Your task to perform on an android device: Open calendar and show me the second week of next month Image 0: 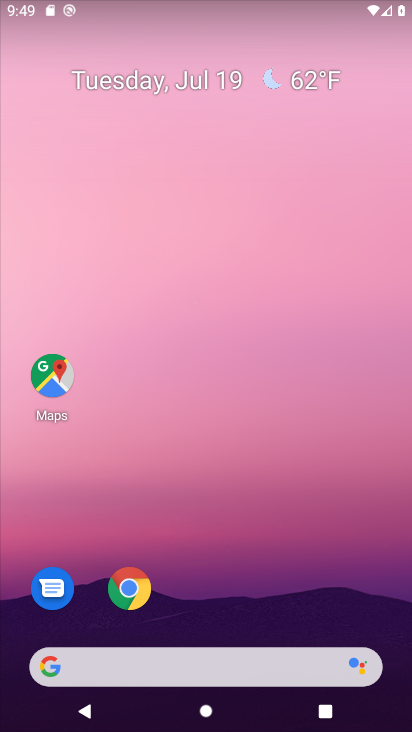
Step 0: drag from (180, 589) to (234, 116)
Your task to perform on an android device: Open calendar and show me the second week of next month Image 1: 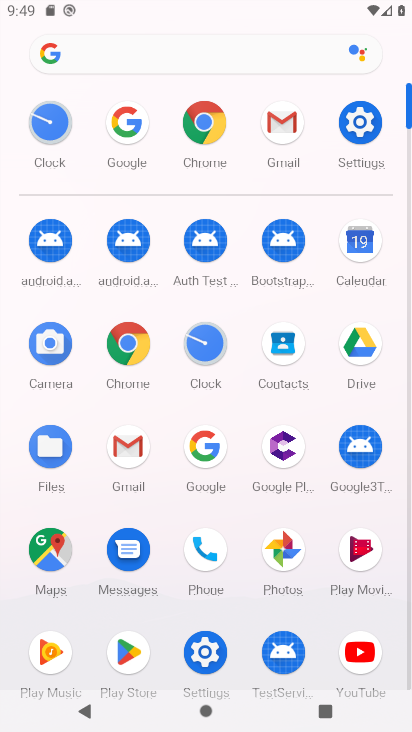
Step 1: click (361, 250)
Your task to perform on an android device: Open calendar and show me the second week of next month Image 2: 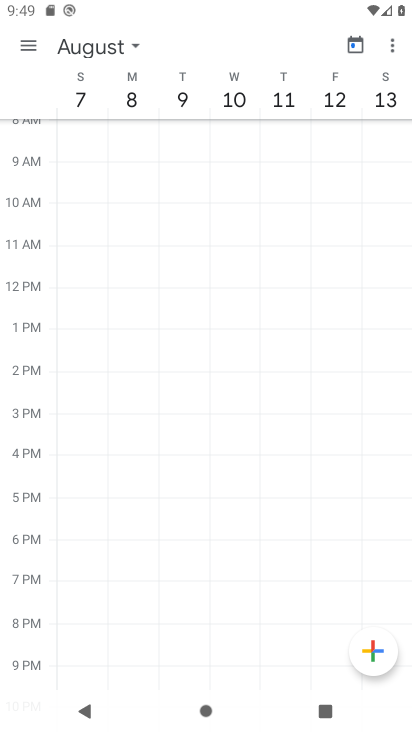
Step 2: click (95, 49)
Your task to perform on an android device: Open calendar and show me the second week of next month Image 3: 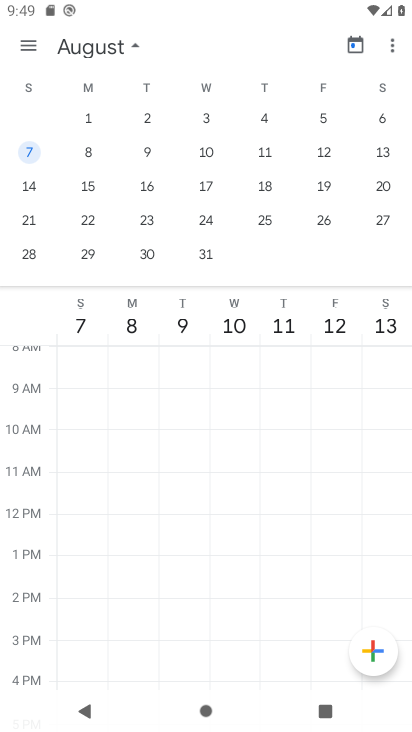
Step 3: task complete